Your task to perform on an android device: What's the weather today? Image 0: 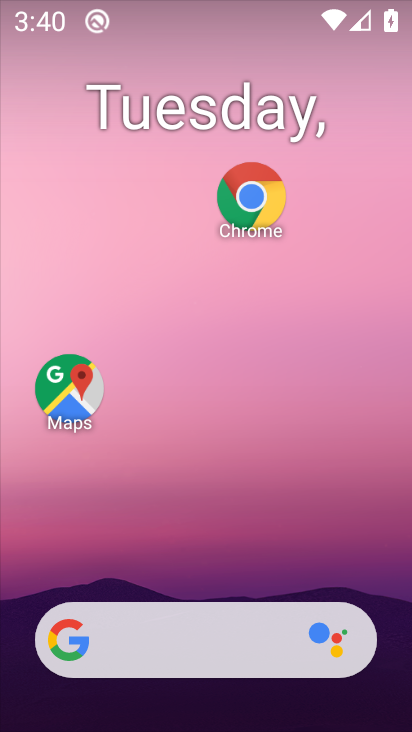
Step 0: drag from (223, 597) to (236, 26)
Your task to perform on an android device: What's the weather today? Image 1: 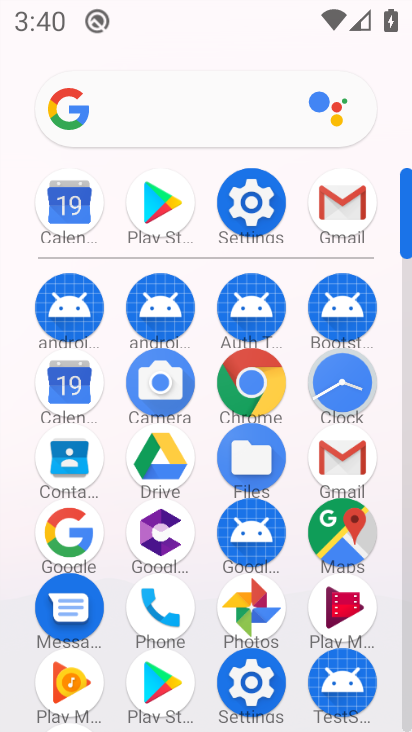
Step 1: click (71, 522)
Your task to perform on an android device: What's the weather today? Image 2: 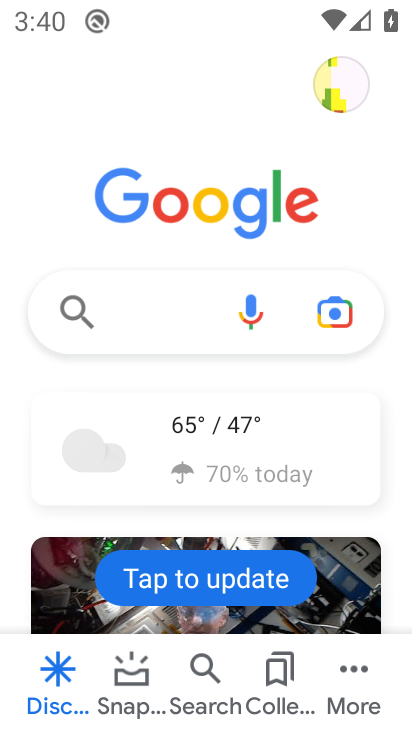
Step 2: click (231, 444)
Your task to perform on an android device: What's the weather today? Image 3: 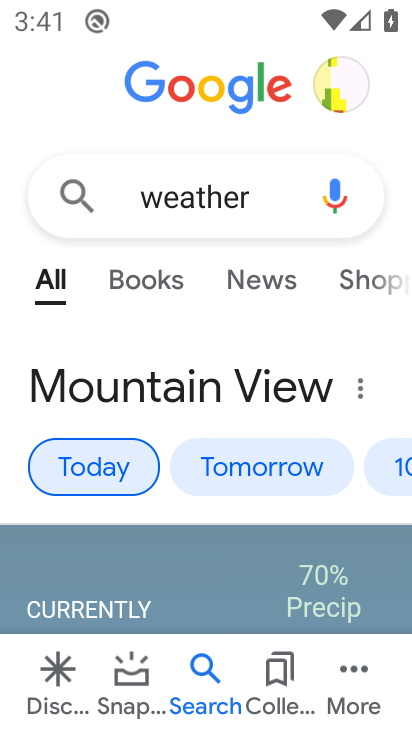
Step 3: task complete